Your task to perform on an android device: turn off notifications settings in the gmail app Image 0: 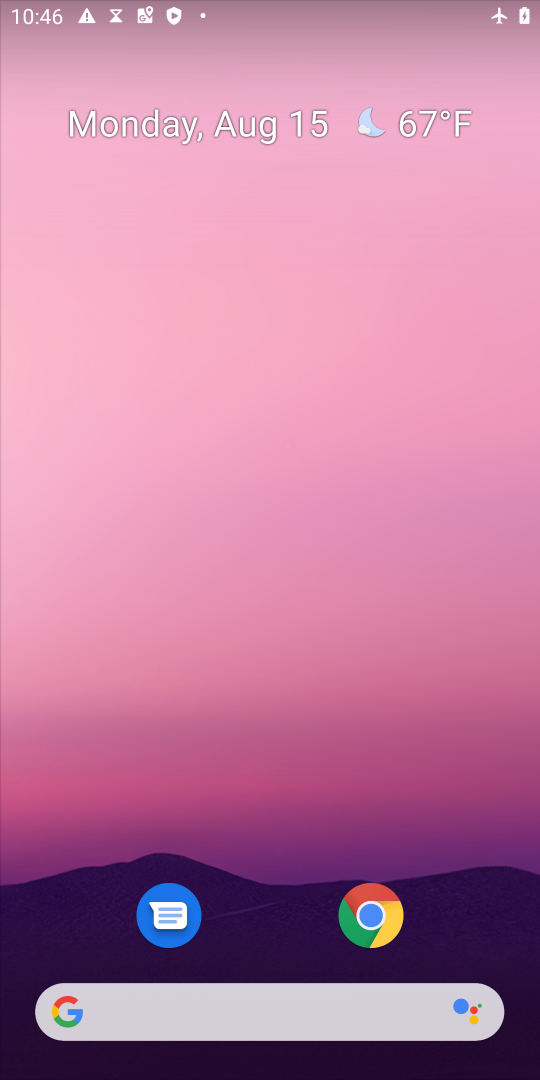
Step 0: press home button
Your task to perform on an android device: turn off notifications settings in the gmail app Image 1: 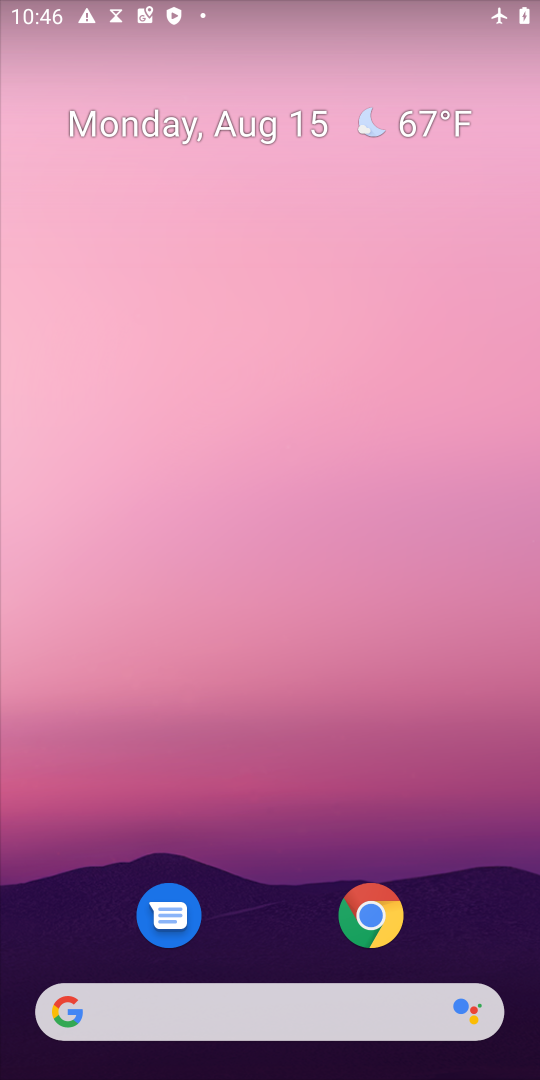
Step 1: drag from (290, 962) to (366, 185)
Your task to perform on an android device: turn off notifications settings in the gmail app Image 2: 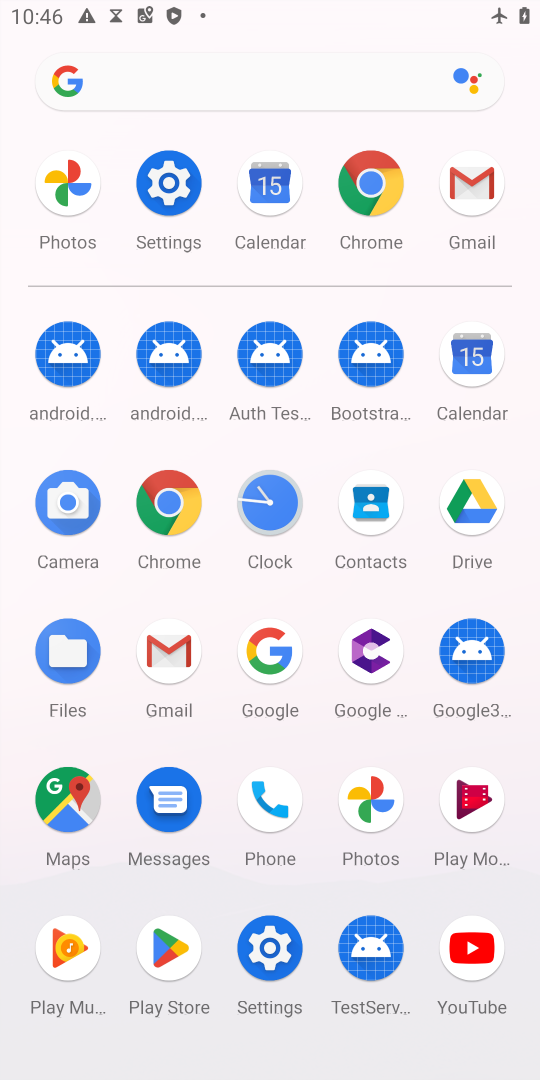
Step 2: click (485, 185)
Your task to perform on an android device: turn off notifications settings in the gmail app Image 3: 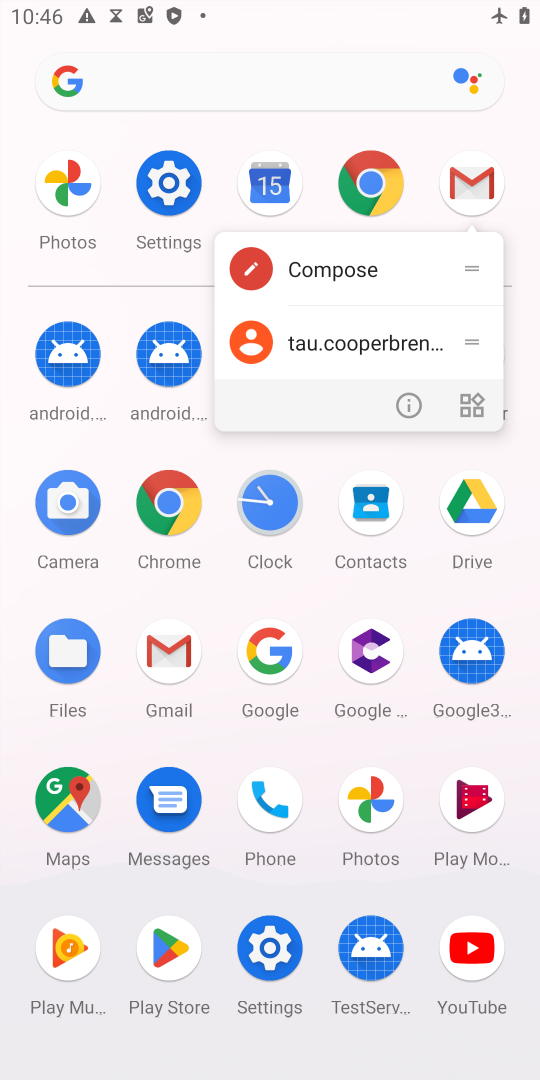
Step 3: click (482, 183)
Your task to perform on an android device: turn off notifications settings in the gmail app Image 4: 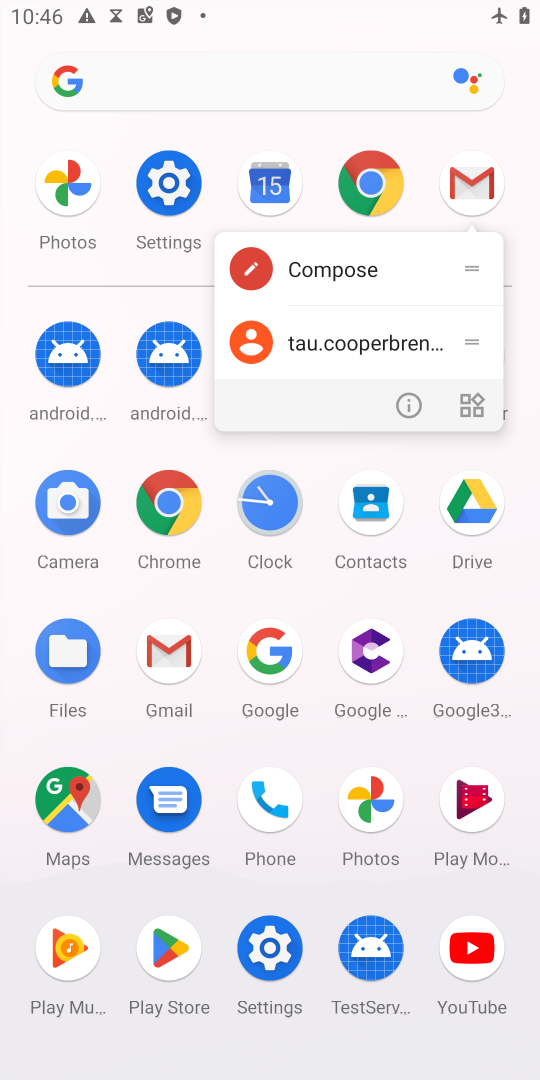
Step 4: click (482, 183)
Your task to perform on an android device: turn off notifications settings in the gmail app Image 5: 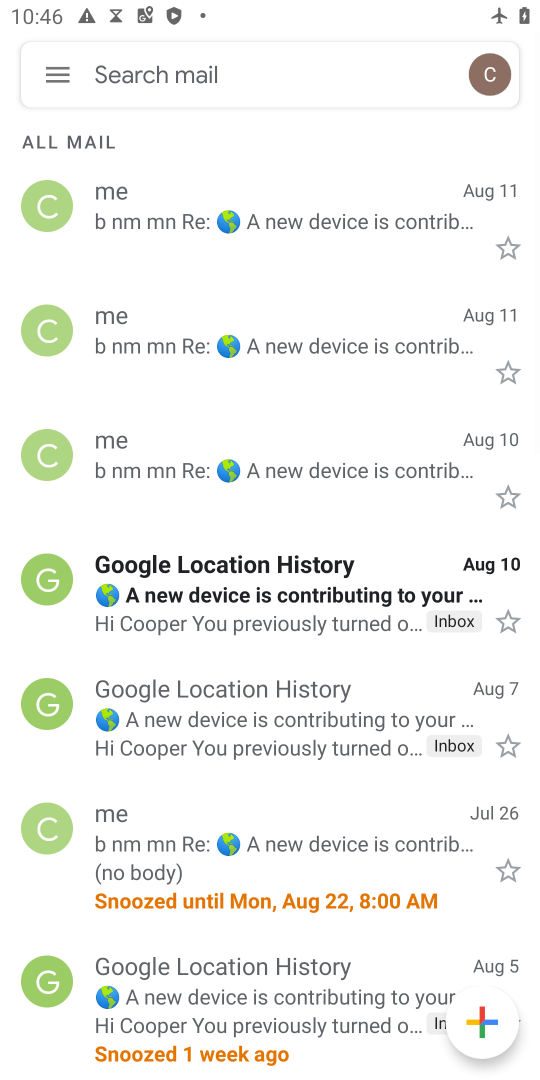
Step 5: click (66, 71)
Your task to perform on an android device: turn off notifications settings in the gmail app Image 6: 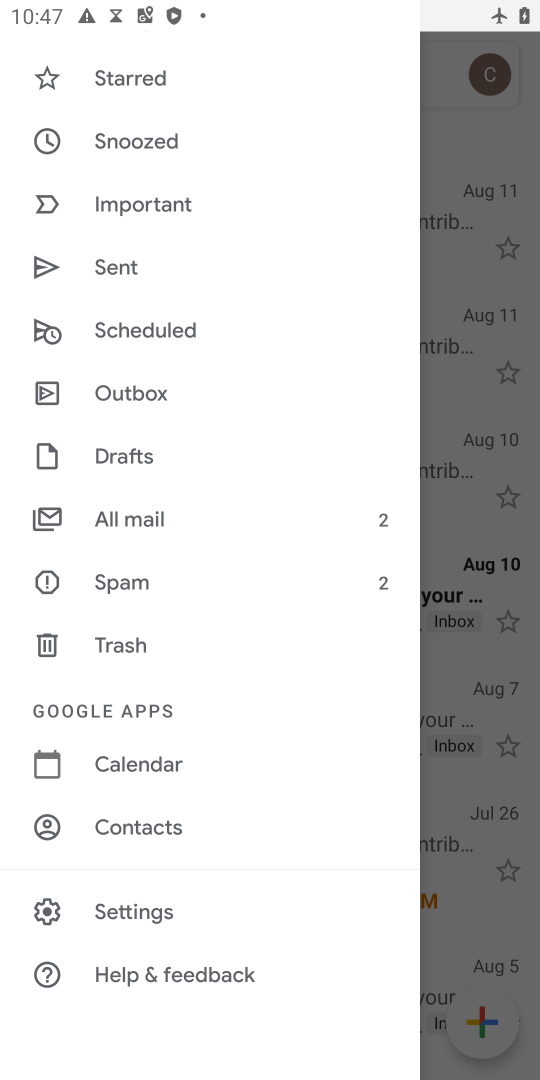
Step 6: click (126, 915)
Your task to perform on an android device: turn off notifications settings in the gmail app Image 7: 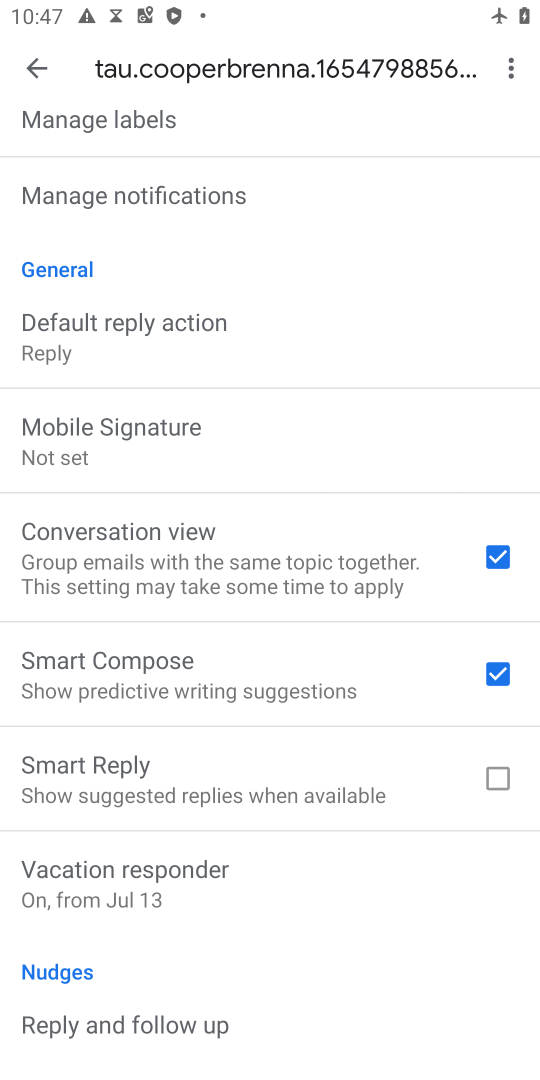
Step 7: click (142, 191)
Your task to perform on an android device: turn off notifications settings in the gmail app Image 8: 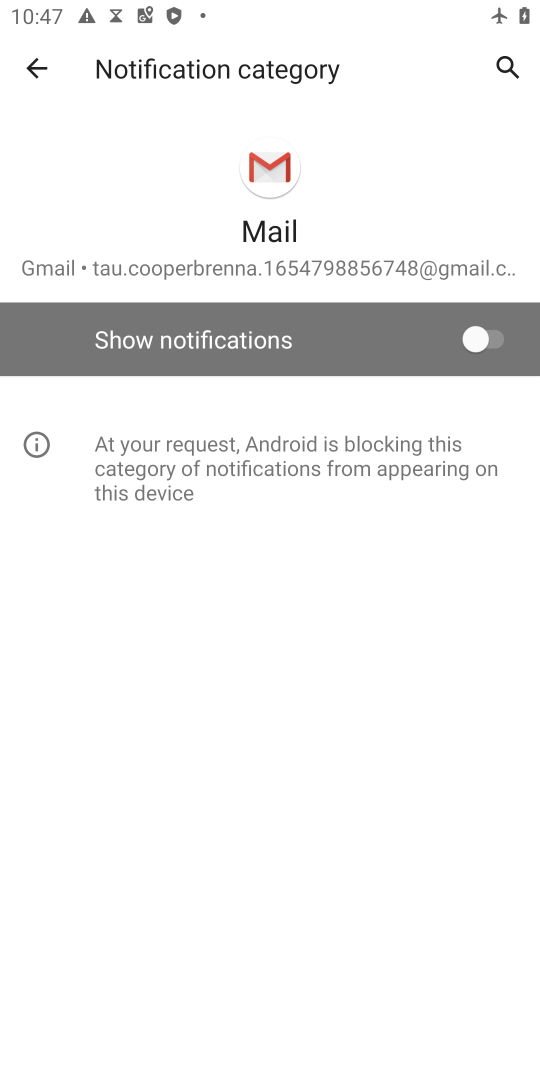
Step 8: task complete